Your task to perform on an android device: Go to Android settings Image 0: 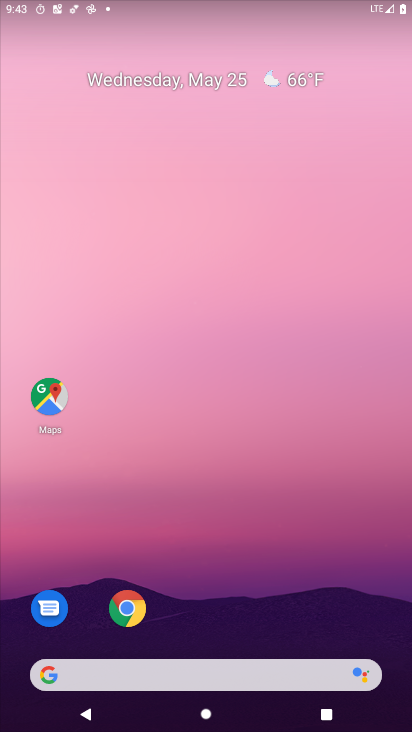
Step 0: drag from (236, 725) to (217, 103)
Your task to perform on an android device: Go to Android settings Image 1: 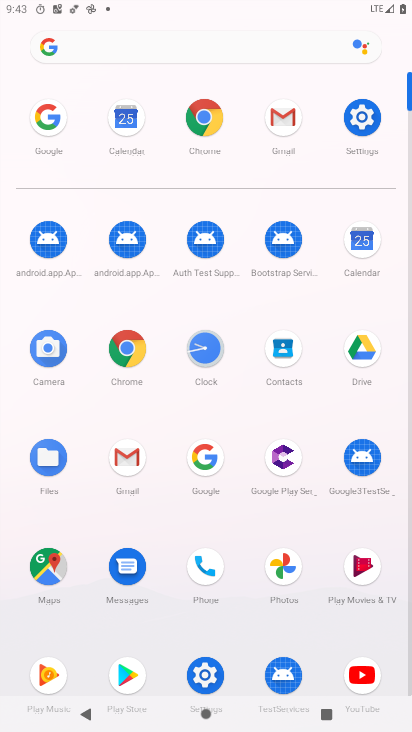
Step 1: click (366, 118)
Your task to perform on an android device: Go to Android settings Image 2: 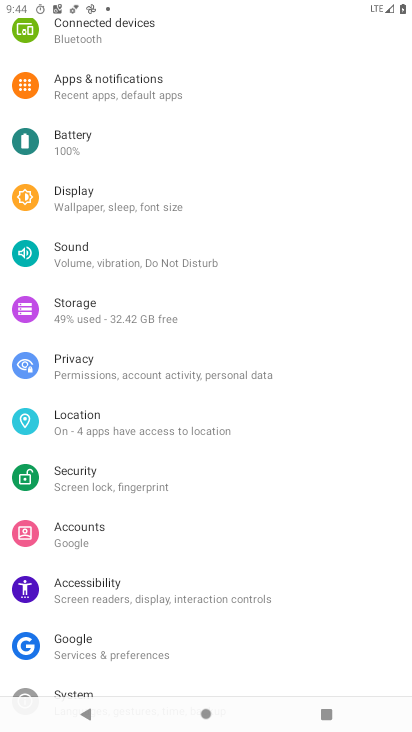
Step 2: task complete